Your task to perform on an android device: What's the weather going to be this weekend? Image 0: 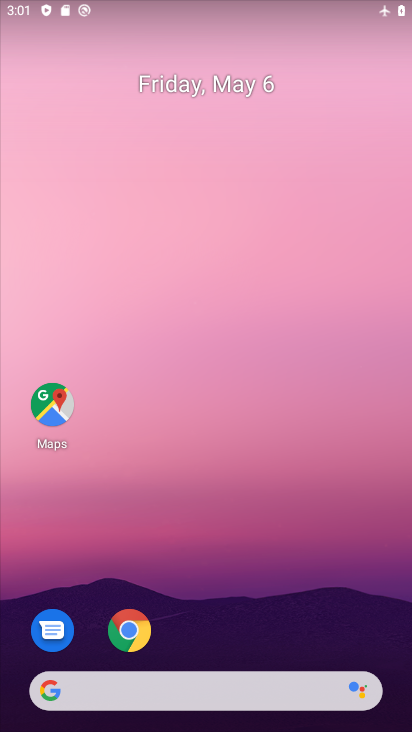
Step 0: drag from (289, 660) to (259, 9)
Your task to perform on an android device: What's the weather going to be this weekend? Image 1: 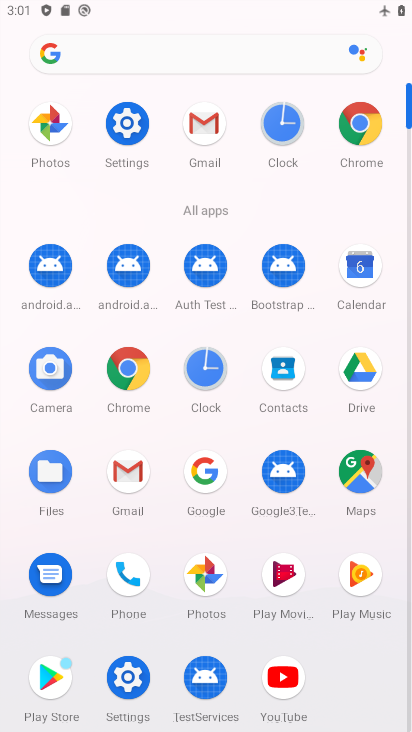
Step 1: click (215, 54)
Your task to perform on an android device: What's the weather going to be this weekend? Image 2: 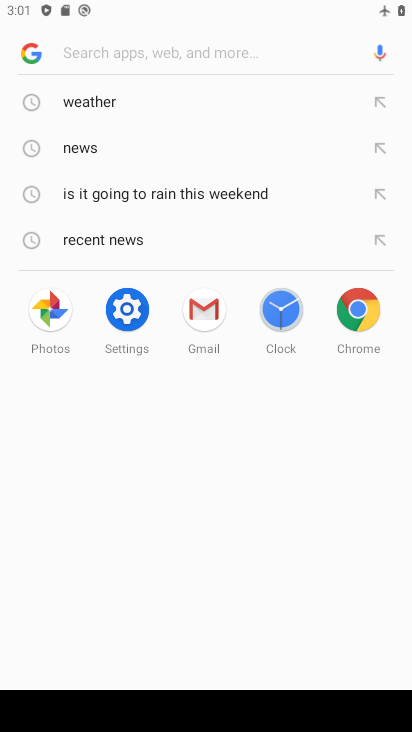
Step 2: type "what's the weather going to be this weekend"
Your task to perform on an android device: What's the weather going to be this weekend? Image 3: 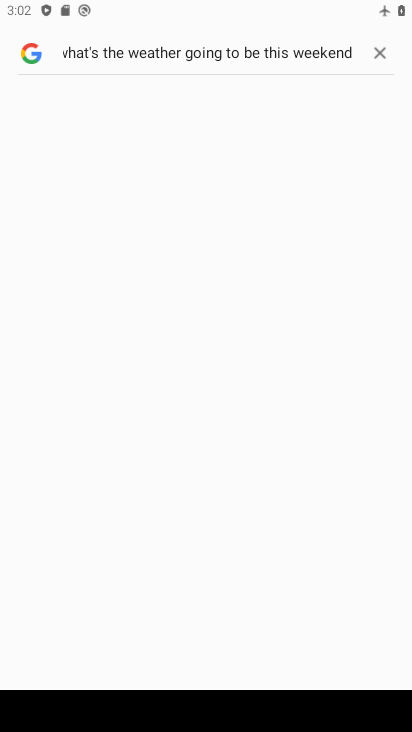
Step 3: task complete